Your task to perform on an android device: Turn on the flashlight Image 0: 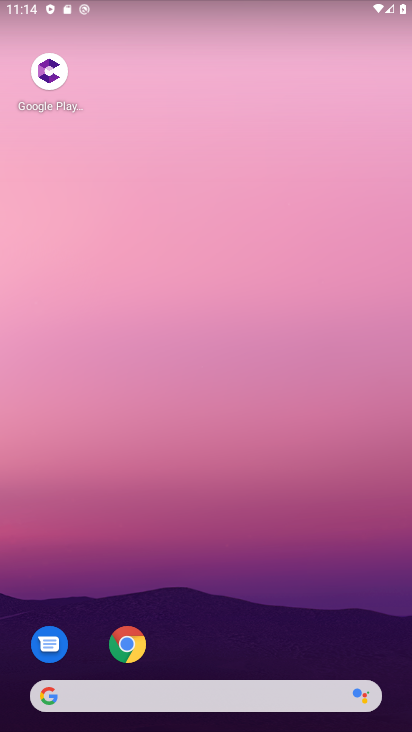
Step 0: drag from (183, 684) to (156, 134)
Your task to perform on an android device: Turn on the flashlight Image 1: 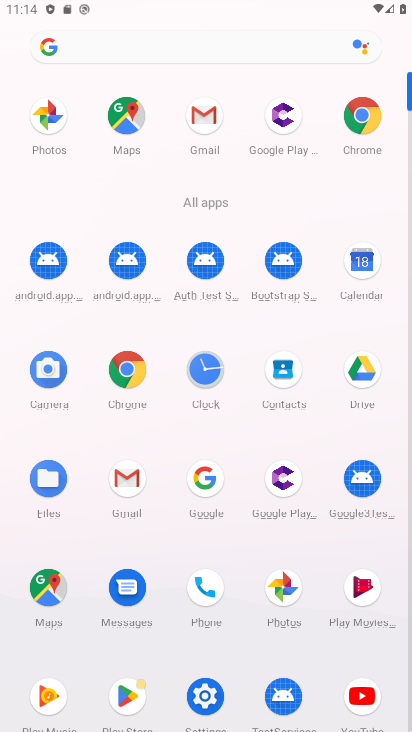
Step 1: click (207, 684)
Your task to perform on an android device: Turn on the flashlight Image 2: 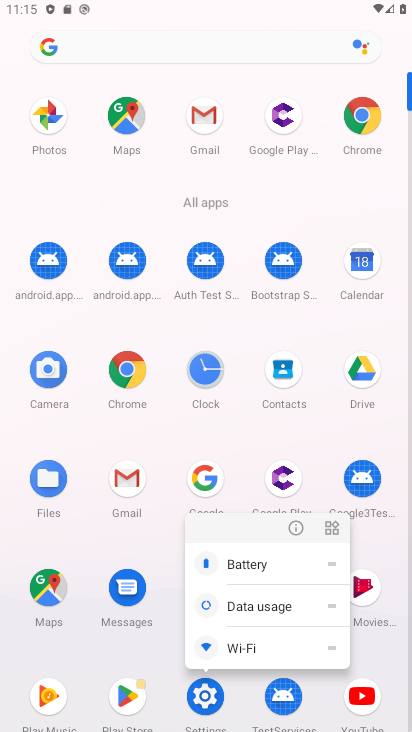
Step 2: click (213, 687)
Your task to perform on an android device: Turn on the flashlight Image 3: 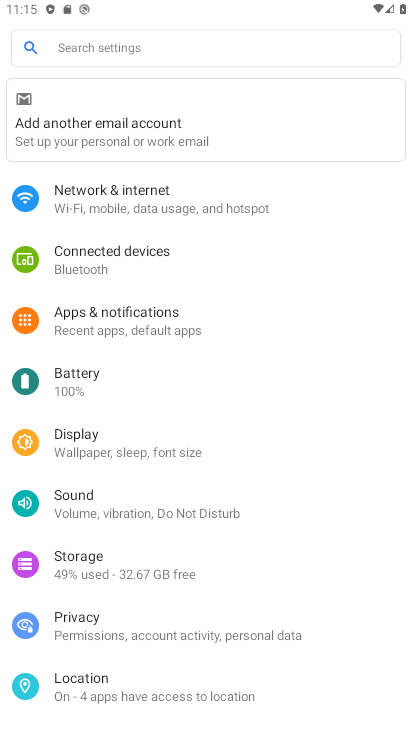
Step 3: task complete